Your task to perform on an android device: Search for macbook pro on walmart, select the first entry, and add it to the cart. Image 0: 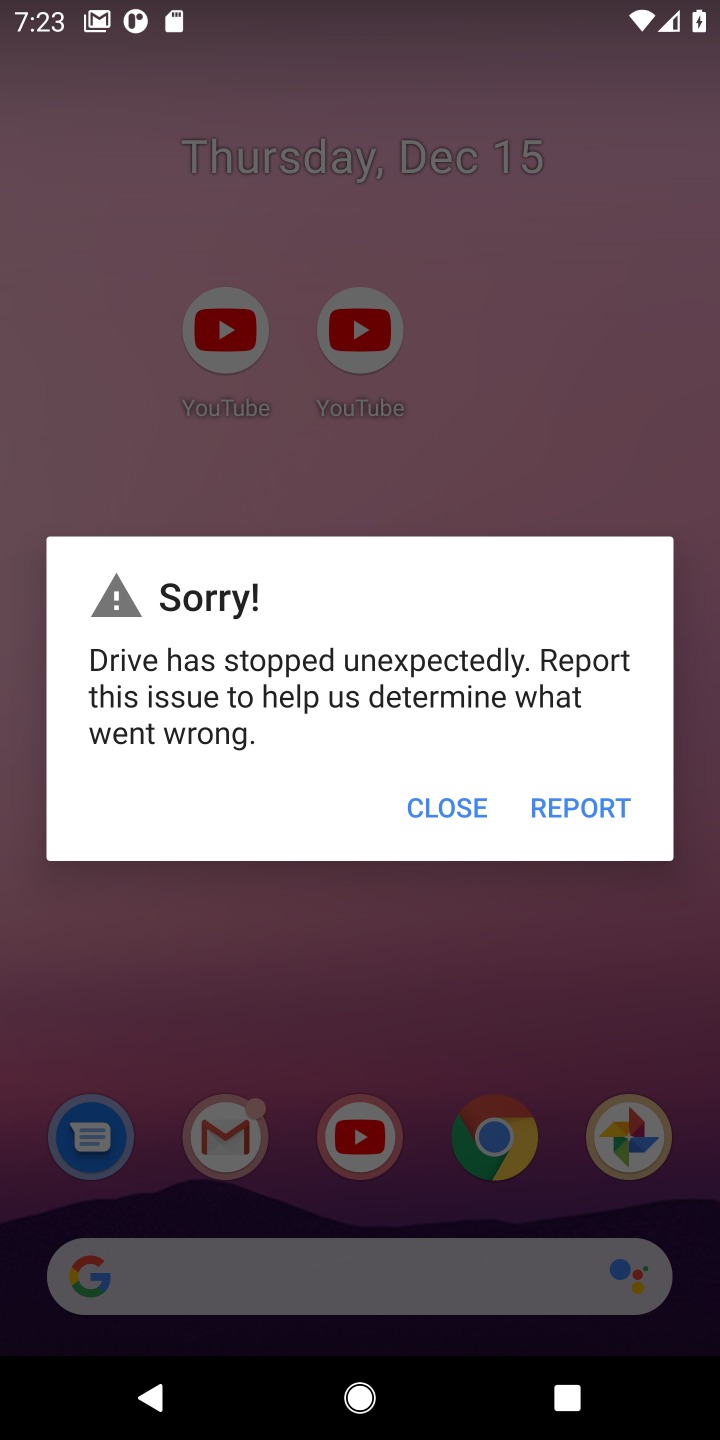
Step 0: click (443, 813)
Your task to perform on an android device: Search for macbook pro on walmart, select the first entry, and add it to the cart. Image 1: 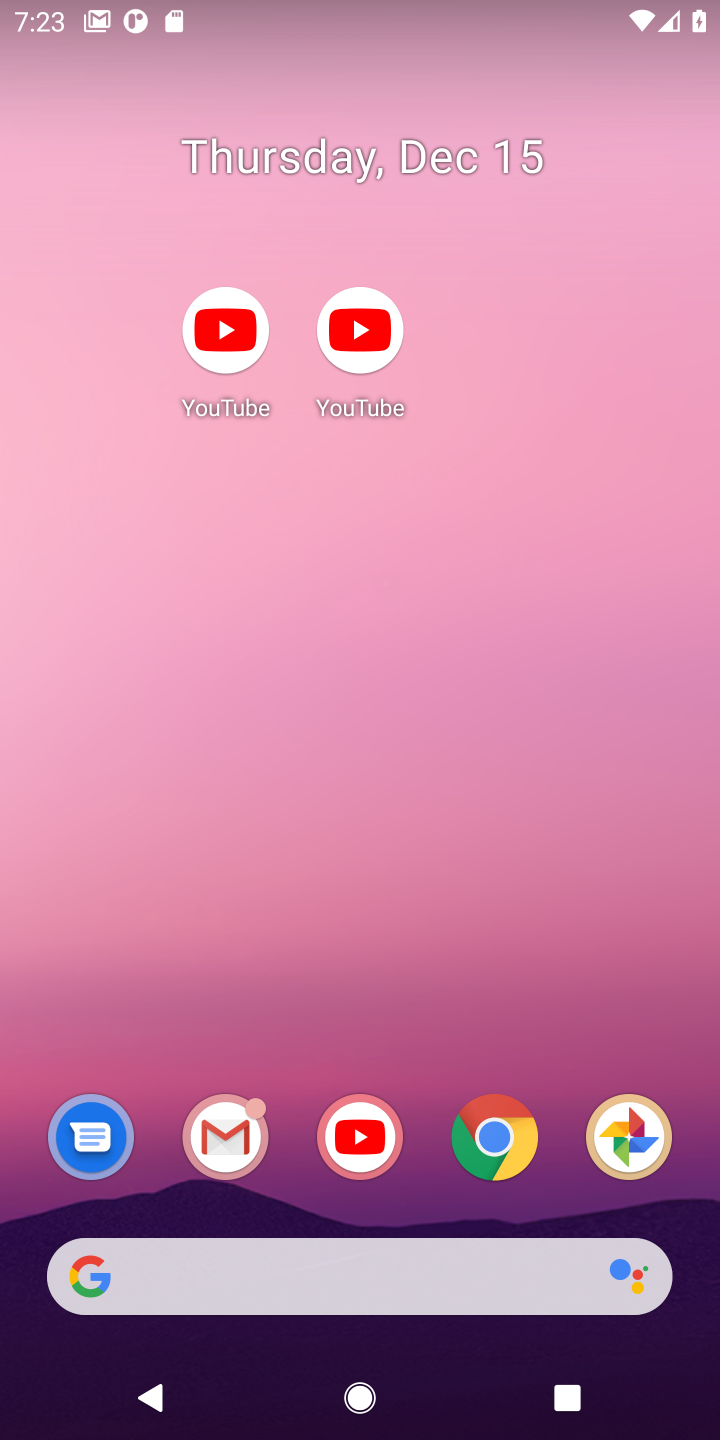
Step 1: click (262, 421)
Your task to perform on an android device: Search for macbook pro on walmart, select the first entry, and add it to the cart. Image 2: 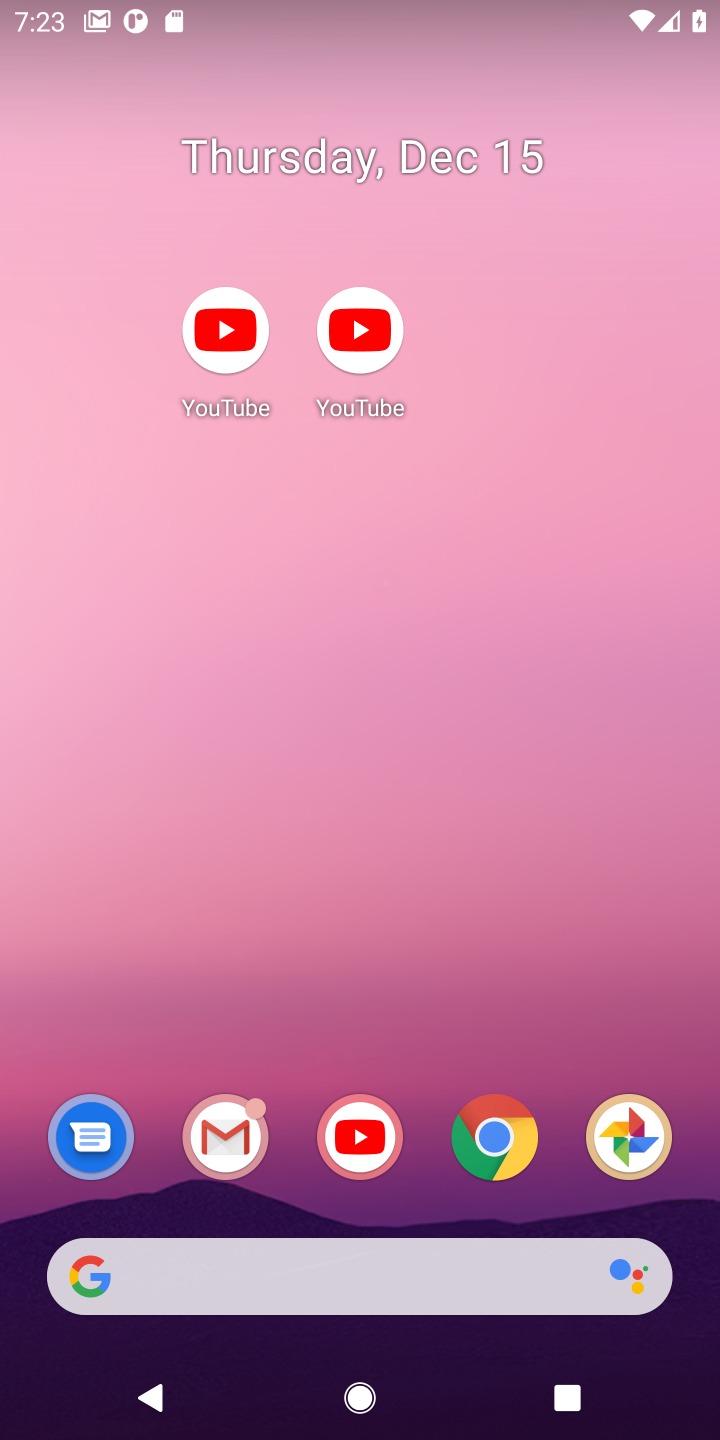
Step 2: drag from (345, 1020) to (345, 342)
Your task to perform on an android device: Search for macbook pro on walmart, select the first entry, and add it to the cart. Image 3: 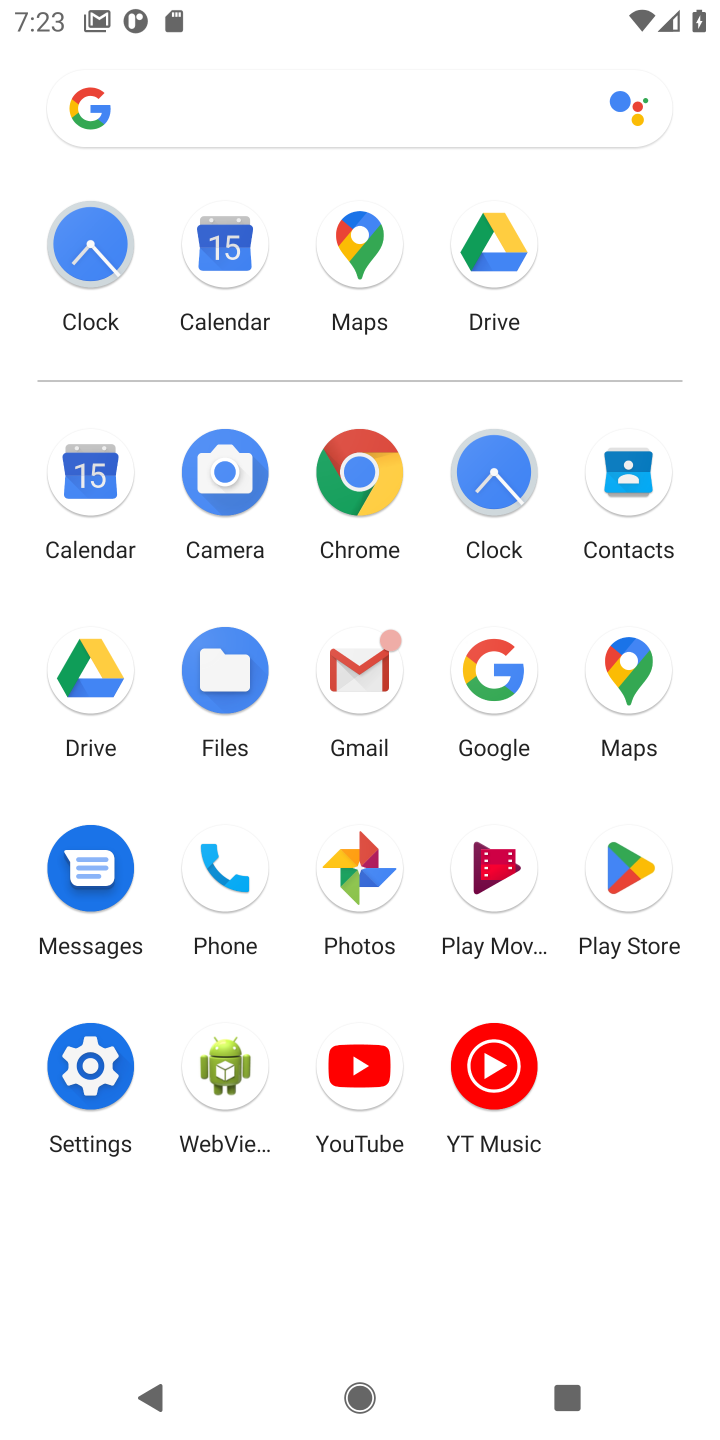
Step 3: click (501, 667)
Your task to perform on an android device: Search for macbook pro on walmart, select the first entry, and add it to the cart. Image 4: 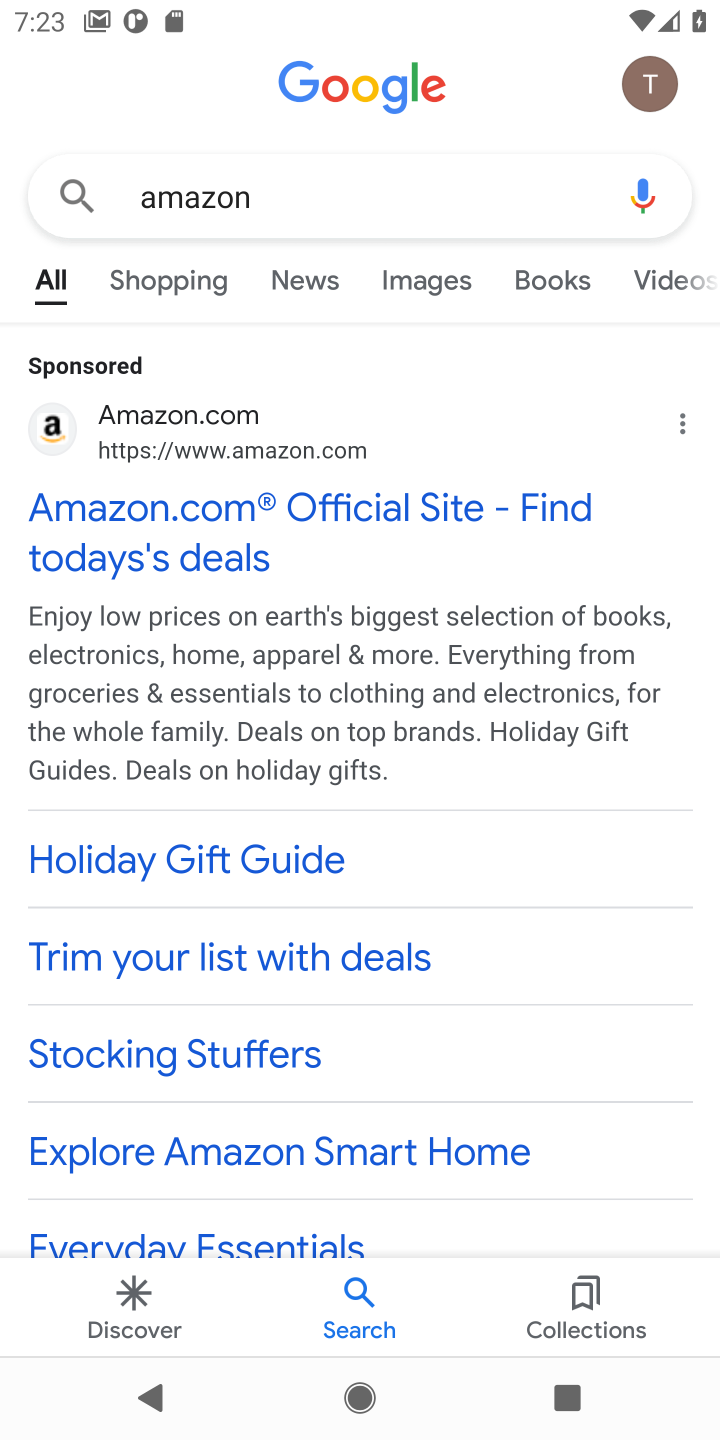
Step 4: click (128, 172)
Your task to perform on an android device: Search for macbook pro on walmart, select the first entry, and add it to the cart. Image 5: 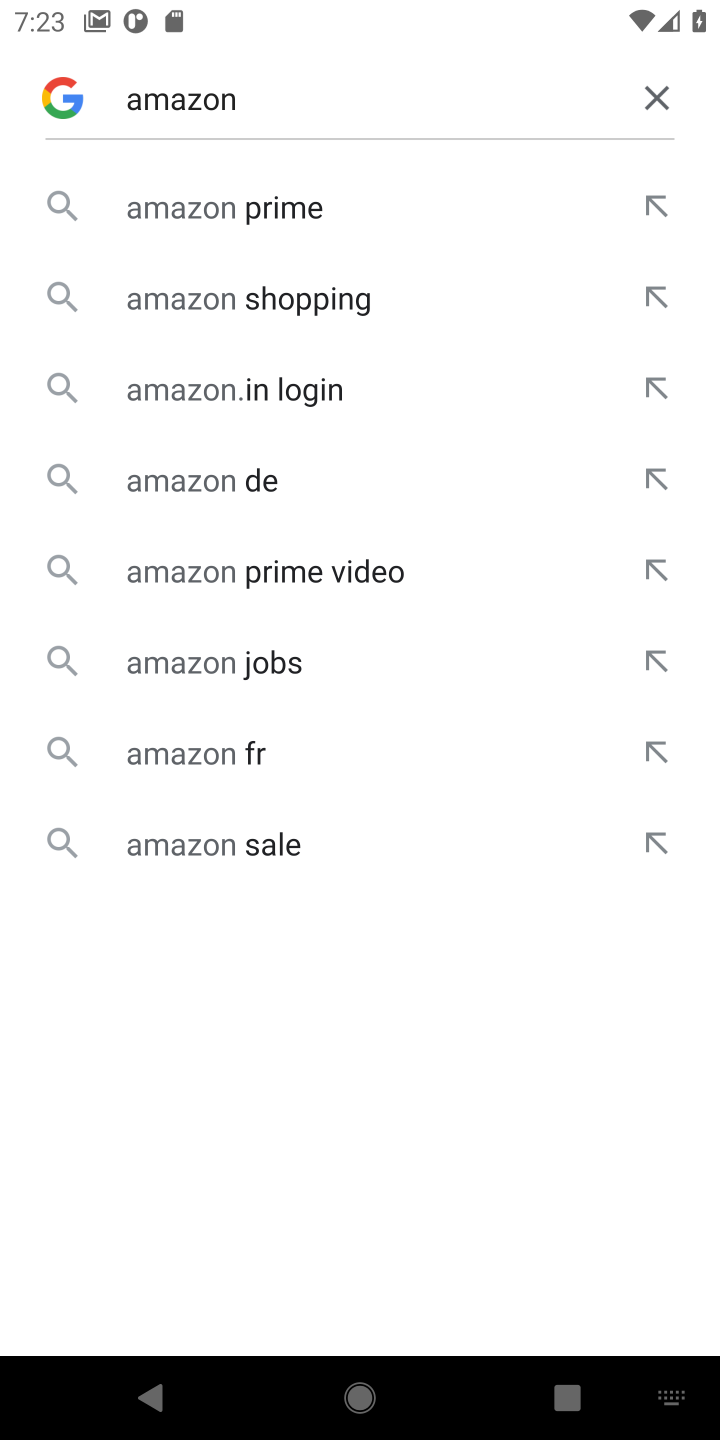
Step 5: click (667, 88)
Your task to perform on an android device: Search for macbook pro on walmart, select the first entry, and add it to the cart. Image 6: 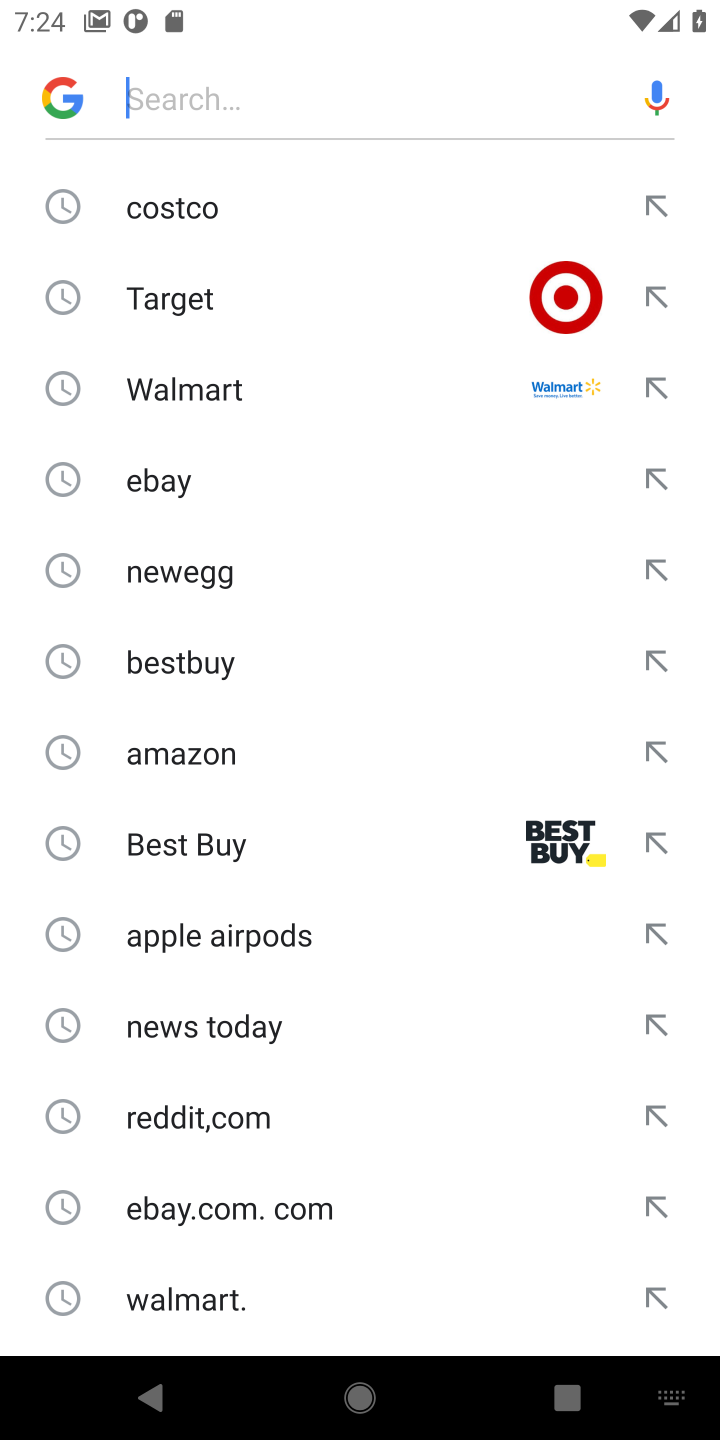
Step 6: click (126, 91)
Your task to perform on an android device: Search for macbook pro on walmart, select the first entry, and add it to the cart. Image 7: 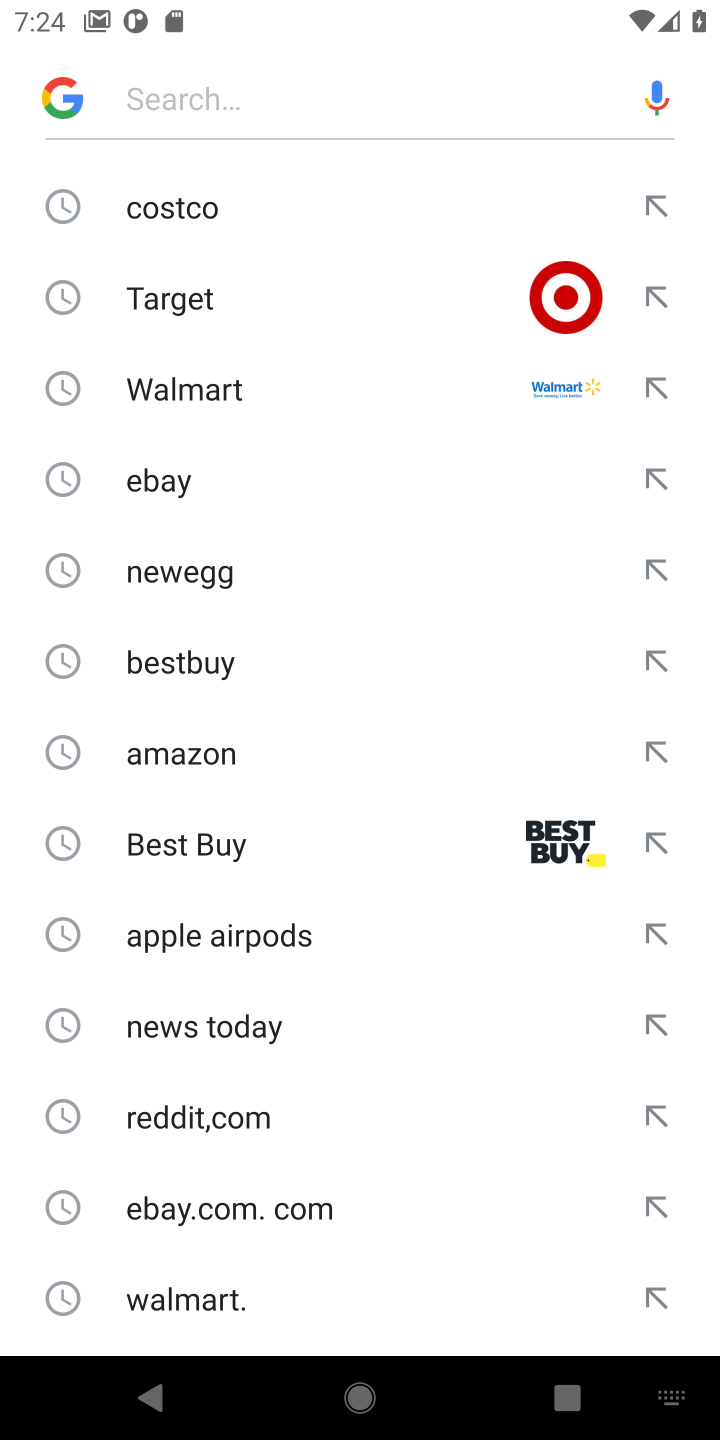
Step 7: click (170, 388)
Your task to perform on an android device: Search for macbook pro on walmart, select the first entry, and add it to the cart. Image 8: 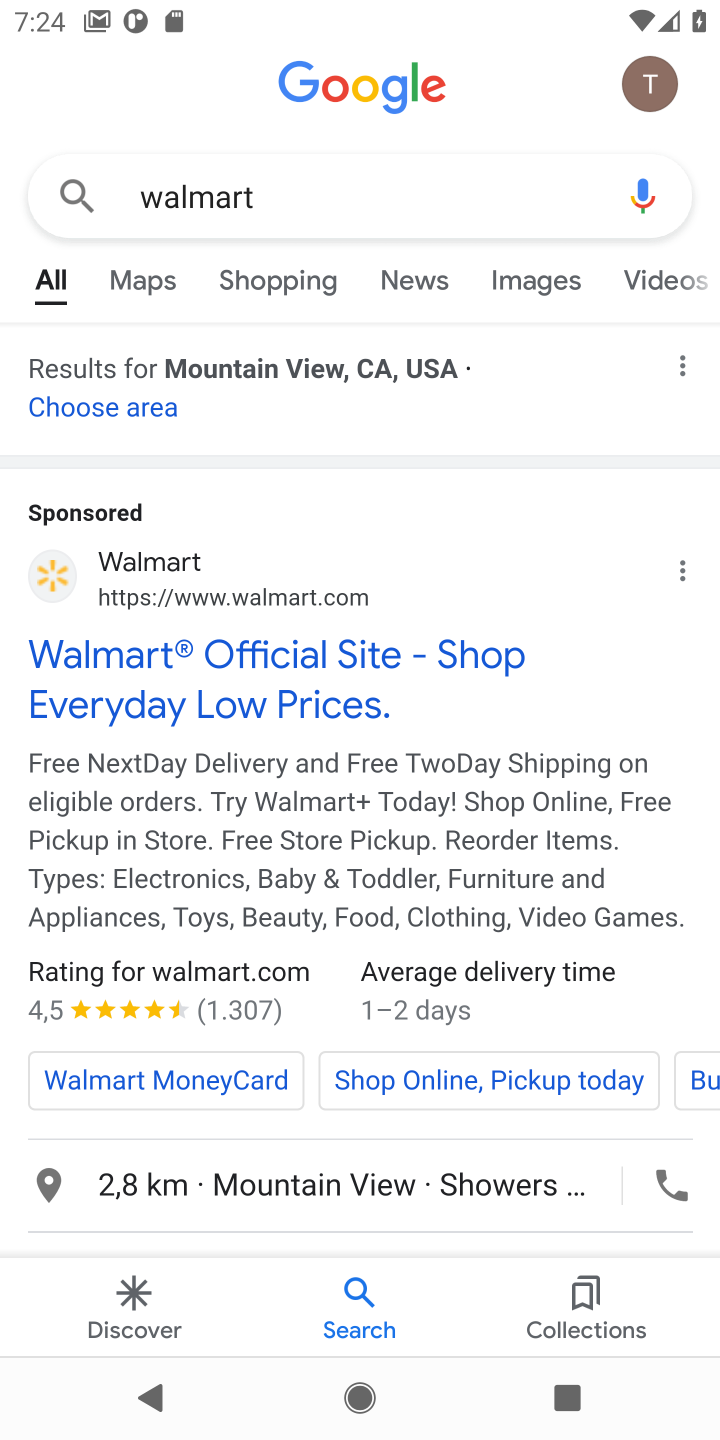
Step 8: drag from (222, 1022) to (222, 363)
Your task to perform on an android device: Search for macbook pro on walmart, select the first entry, and add it to the cart. Image 9: 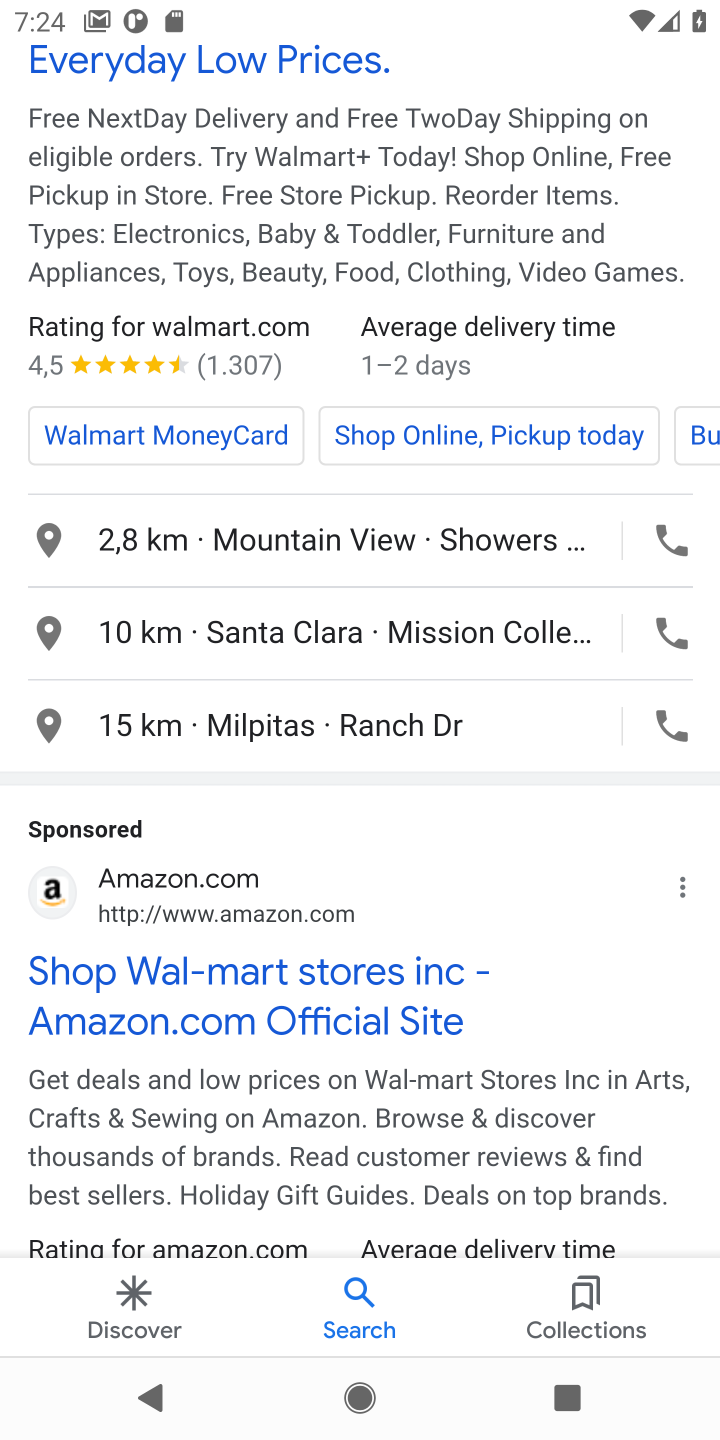
Step 9: drag from (208, 1106) to (206, 490)
Your task to perform on an android device: Search for macbook pro on walmart, select the first entry, and add it to the cart. Image 10: 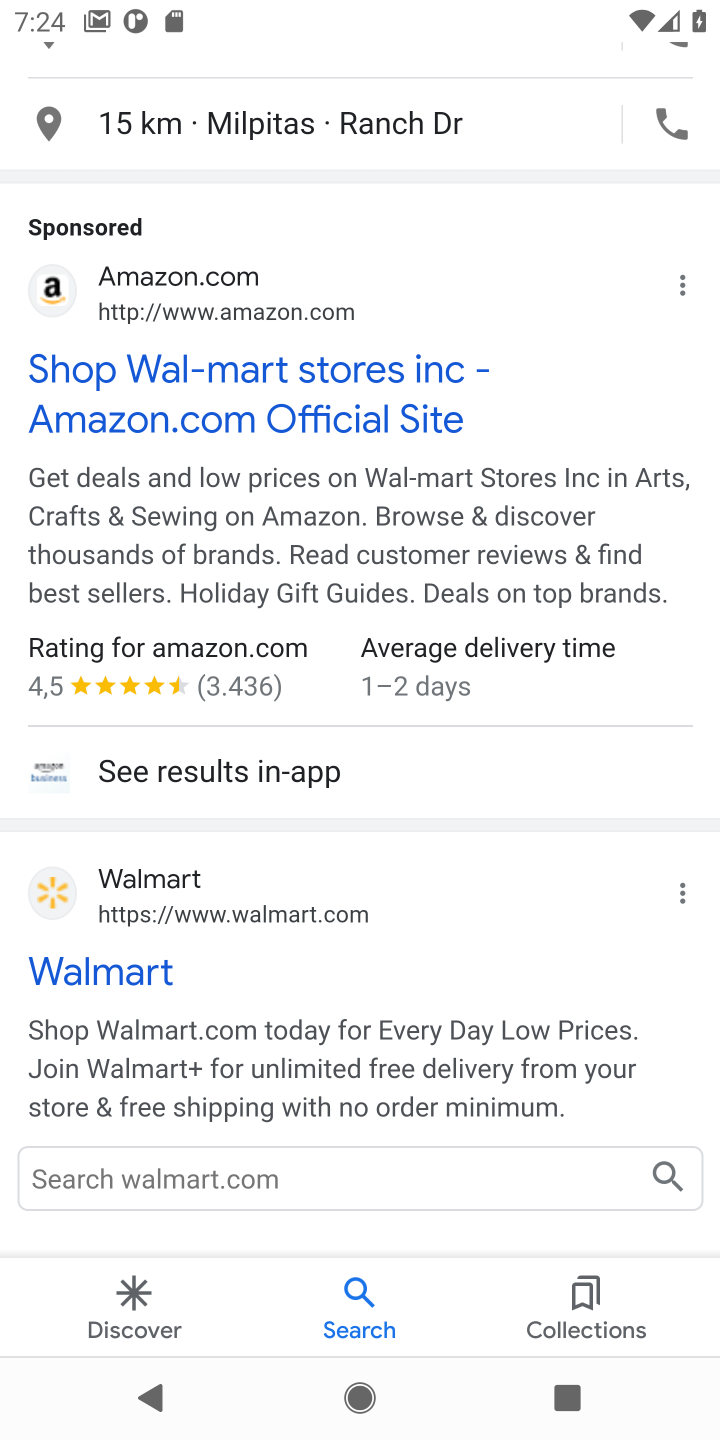
Step 10: click (77, 975)
Your task to perform on an android device: Search for macbook pro on walmart, select the first entry, and add it to the cart. Image 11: 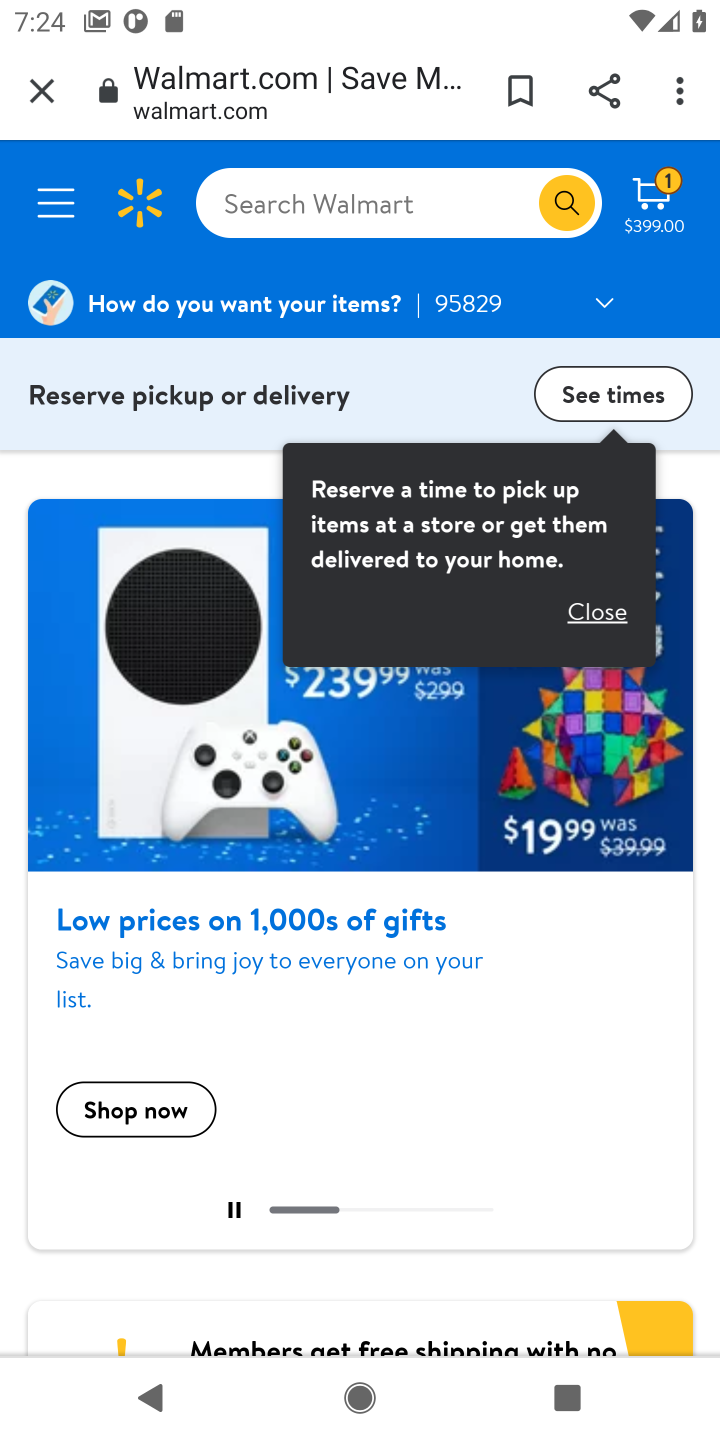
Step 11: click (329, 193)
Your task to perform on an android device: Search for macbook pro on walmart, select the first entry, and add it to the cart. Image 12: 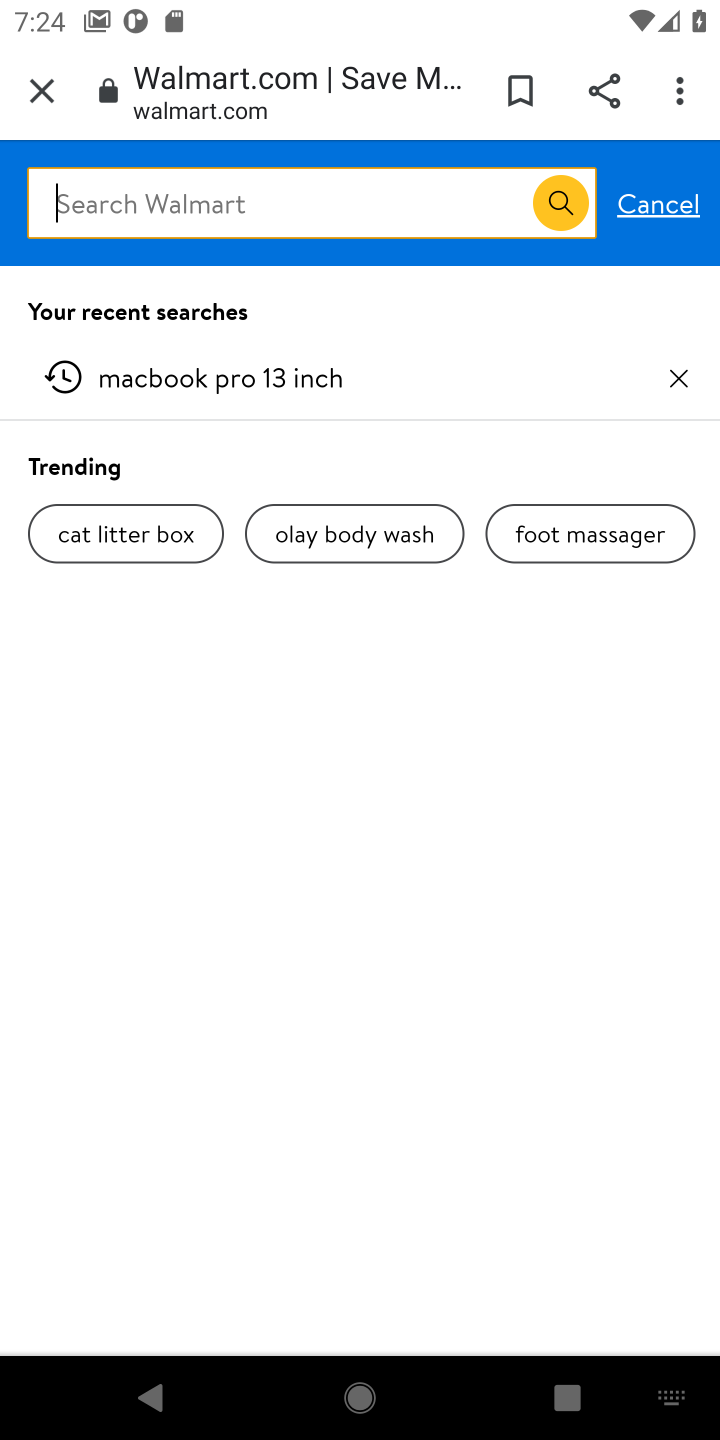
Step 12: type "macbook pro"
Your task to perform on an android device: Search for macbook pro on walmart, select the first entry, and add it to the cart. Image 13: 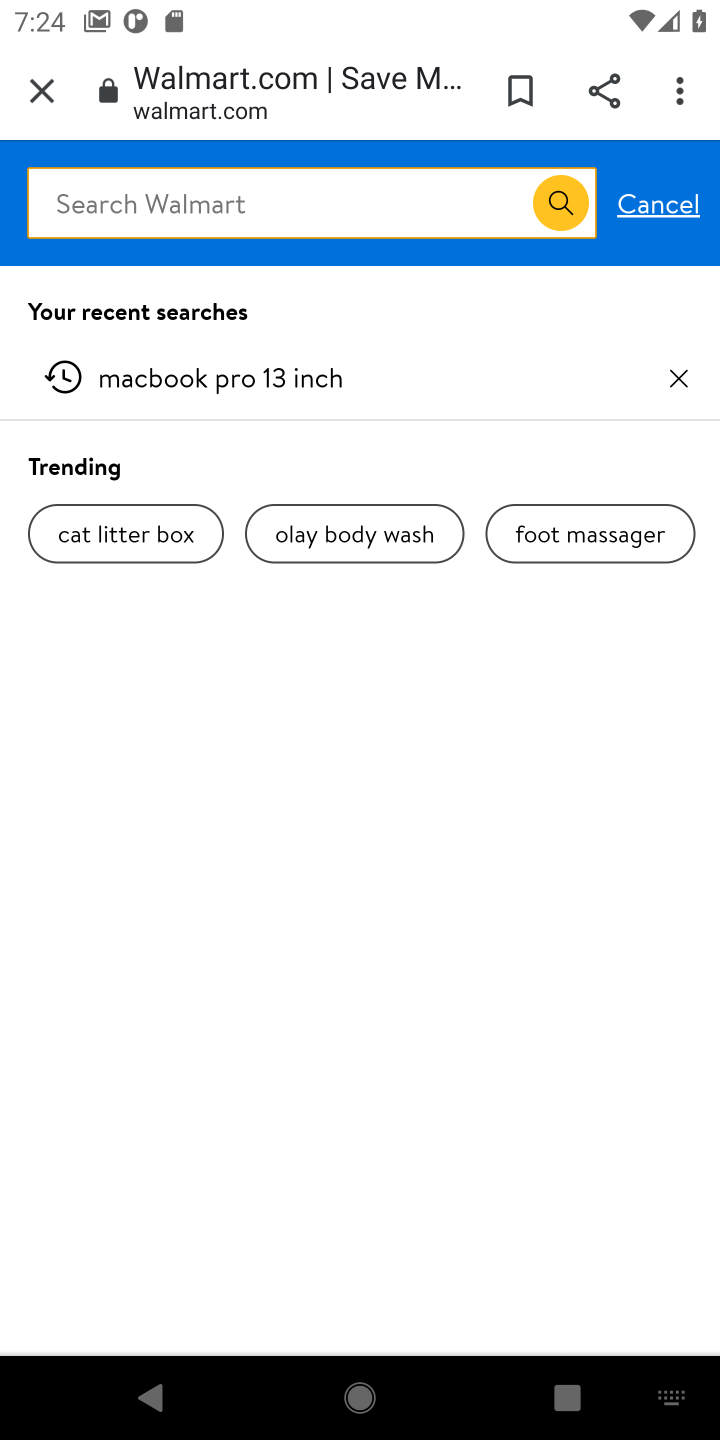
Step 13: click (556, 211)
Your task to perform on an android device: Search for macbook pro on walmart, select the first entry, and add it to the cart. Image 14: 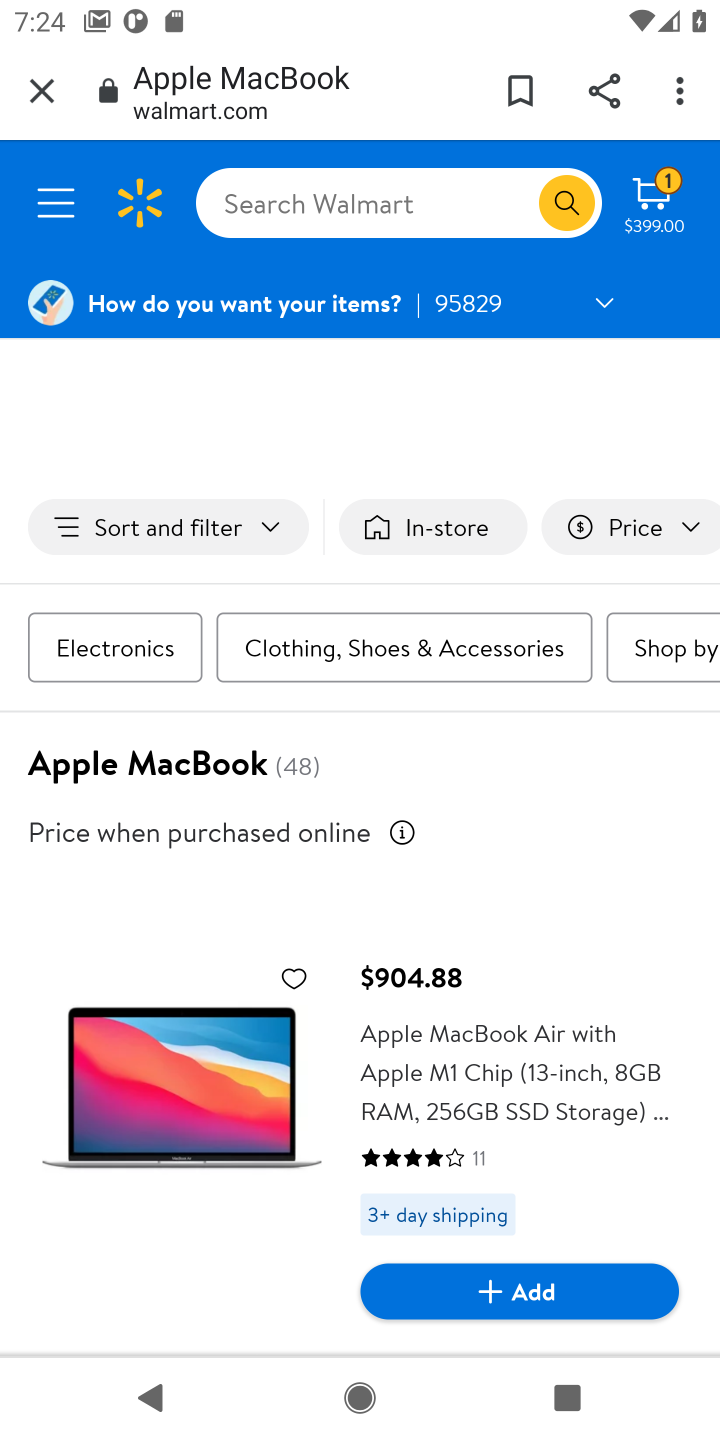
Step 14: click (482, 1301)
Your task to perform on an android device: Search for macbook pro on walmart, select the first entry, and add it to the cart. Image 15: 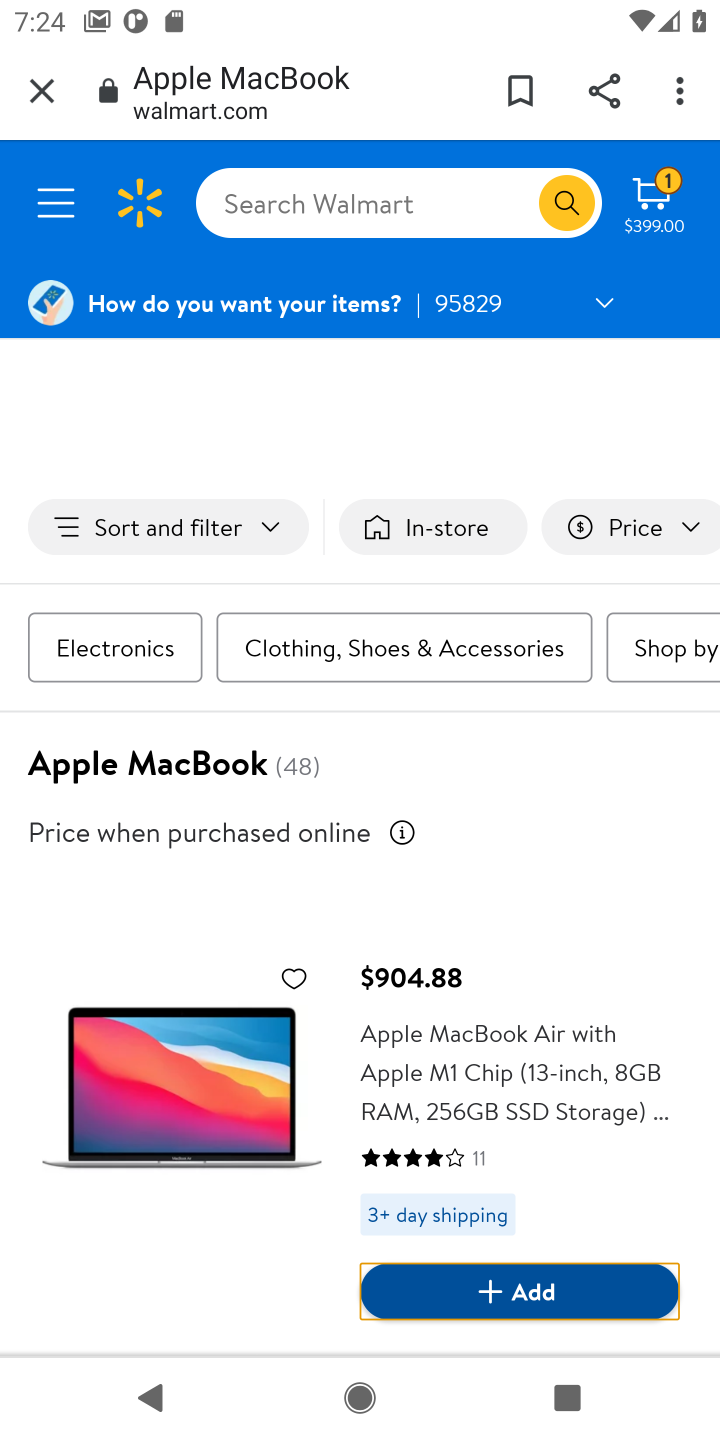
Step 15: drag from (520, 1133) to (586, 579)
Your task to perform on an android device: Search for macbook pro on walmart, select the first entry, and add it to the cart. Image 16: 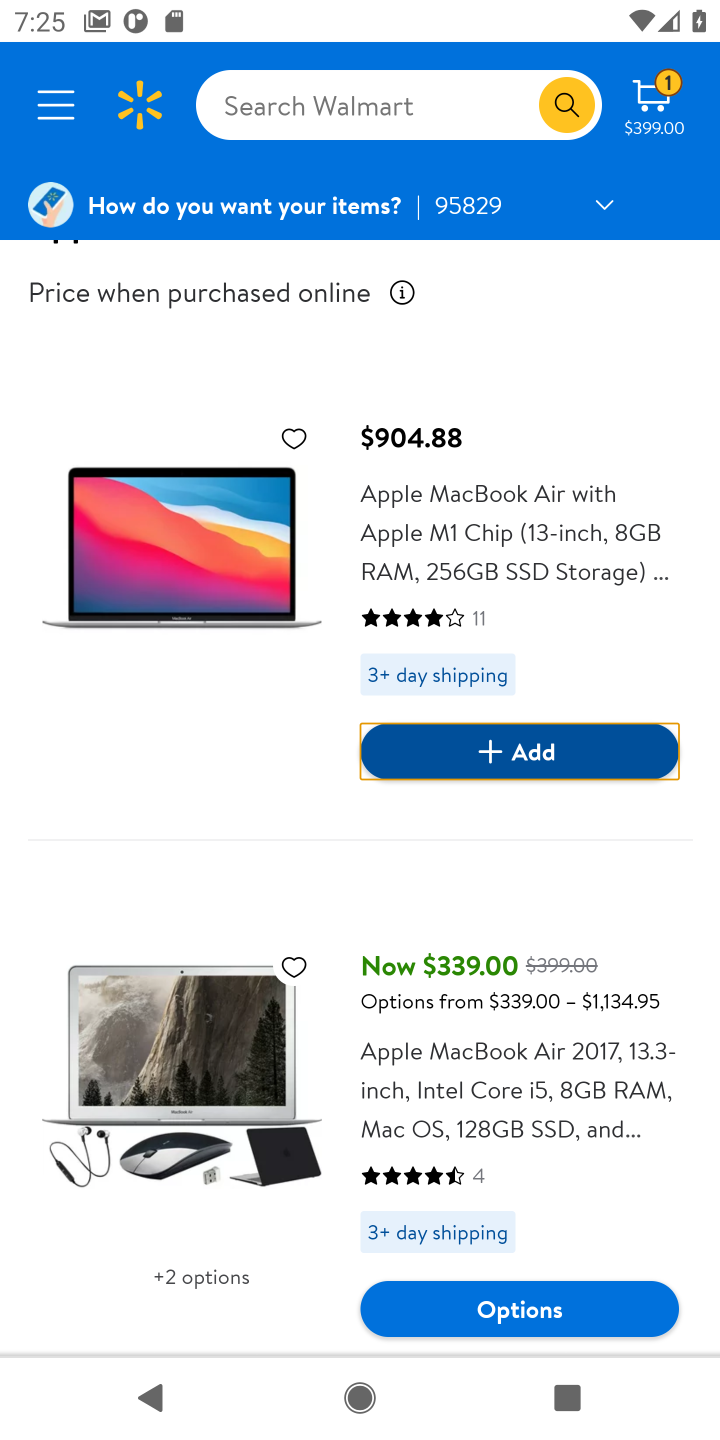
Step 16: click (527, 755)
Your task to perform on an android device: Search for macbook pro on walmart, select the first entry, and add it to the cart. Image 17: 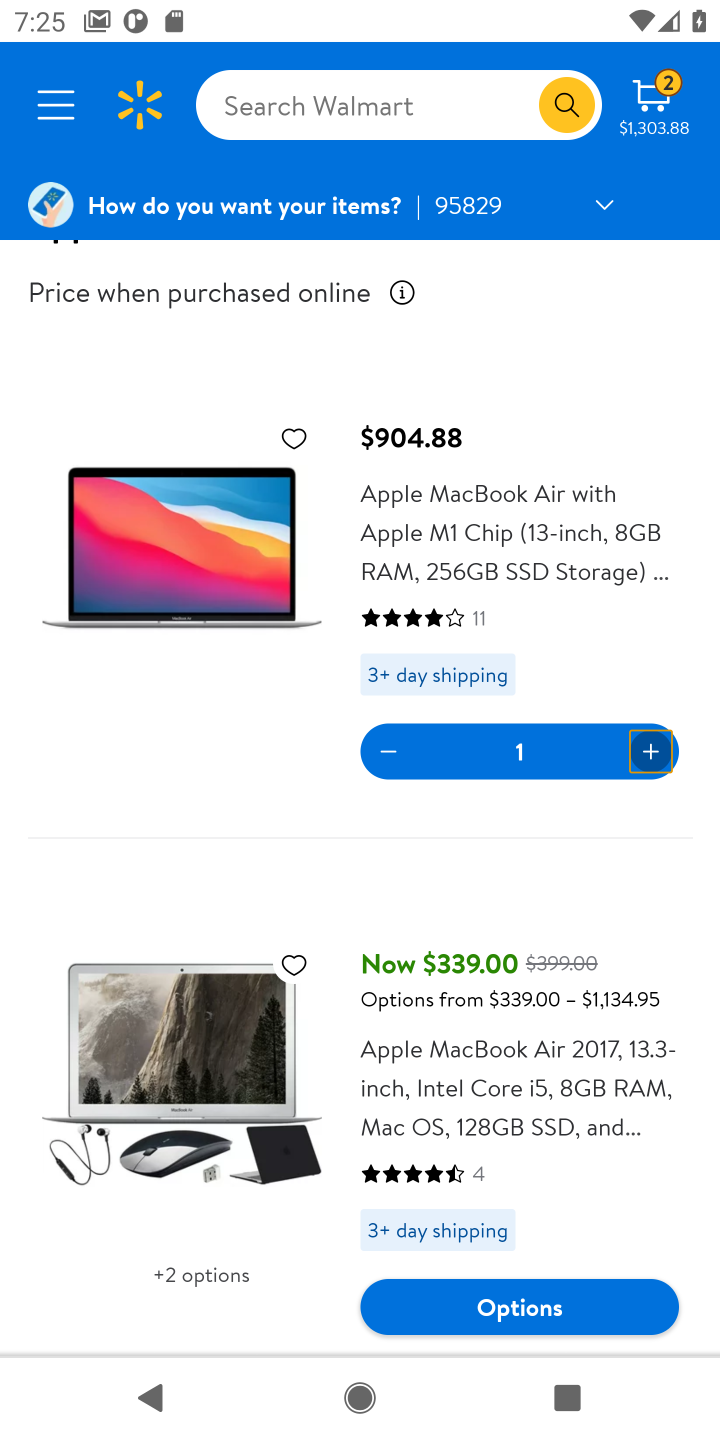
Step 17: task complete